Your task to perform on an android device: What's the weather? Image 0: 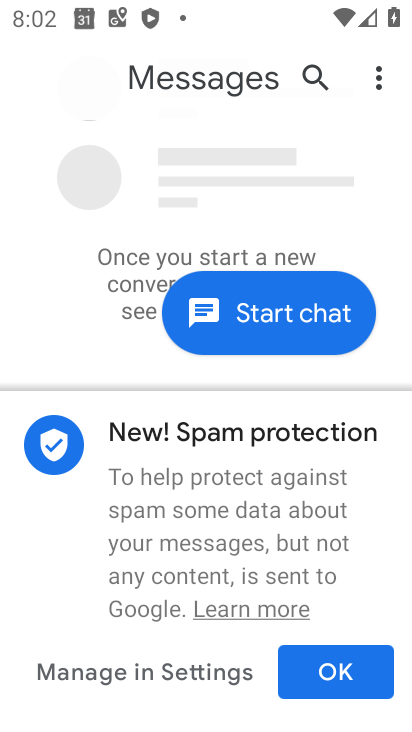
Step 0: press home button
Your task to perform on an android device: What's the weather? Image 1: 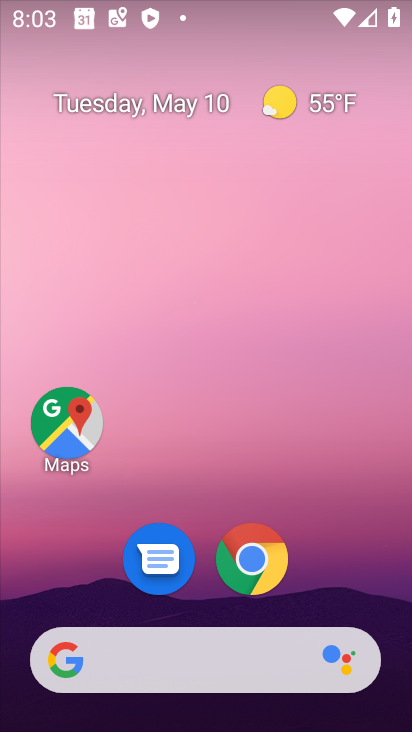
Step 1: drag from (222, 717) to (159, 173)
Your task to perform on an android device: What's the weather? Image 2: 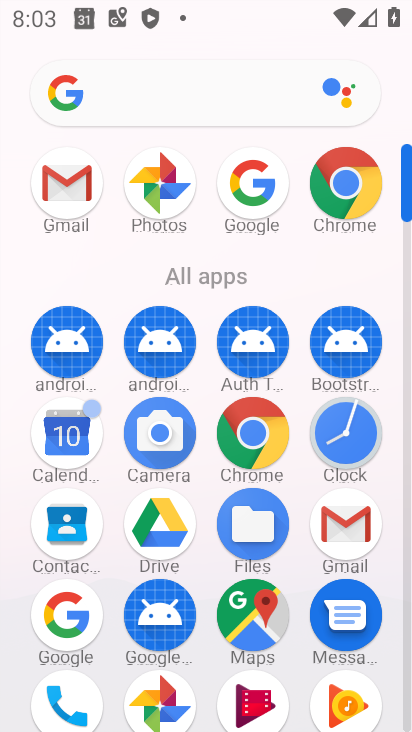
Step 2: click (243, 190)
Your task to perform on an android device: What's the weather? Image 3: 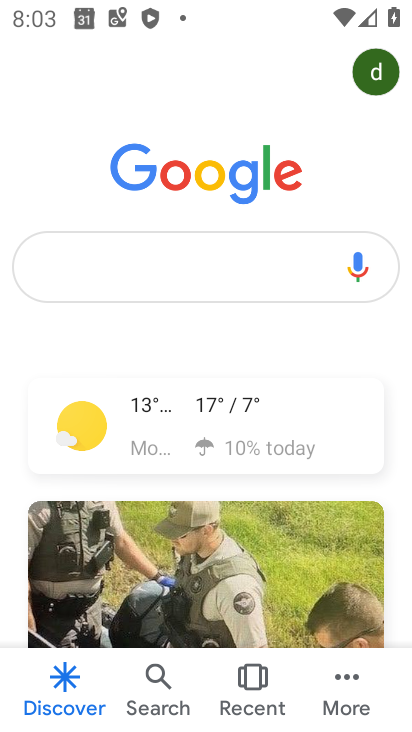
Step 3: click (153, 432)
Your task to perform on an android device: What's the weather? Image 4: 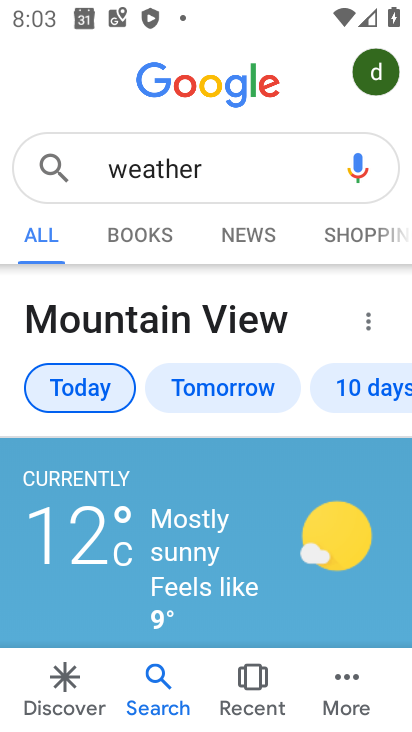
Step 4: task complete